Your task to perform on an android device: choose inbox layout in the gmail app Image 0: 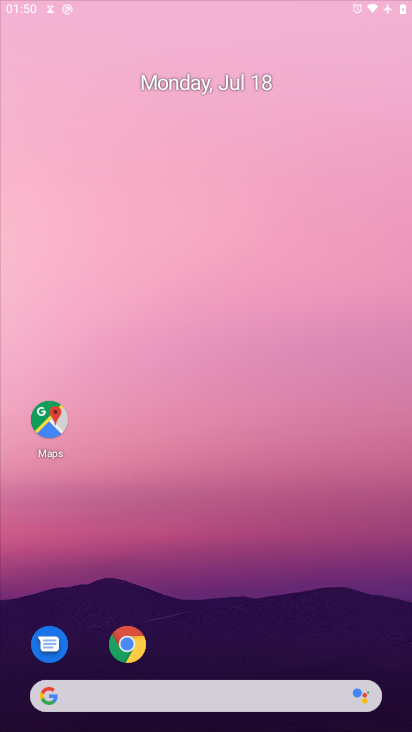
Step 0: press home button
Your task to perform on an android device: choose inbox layout in the gmail app Image 1: 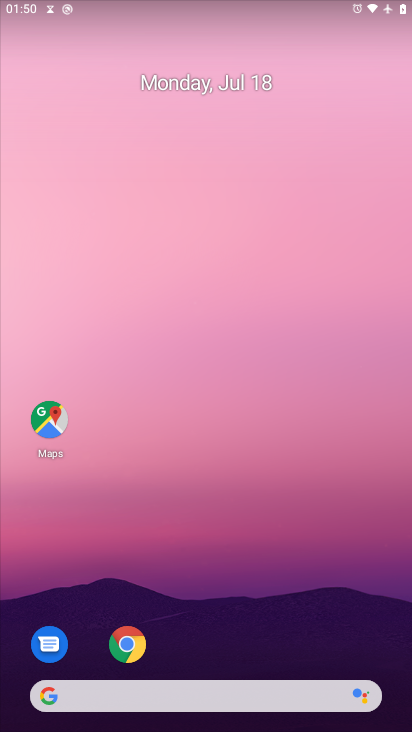
Step 1: drag from (190, 625) to (249, 75)
Your task to perform on an android device: choose inbox layout in the gmail app Image 2: 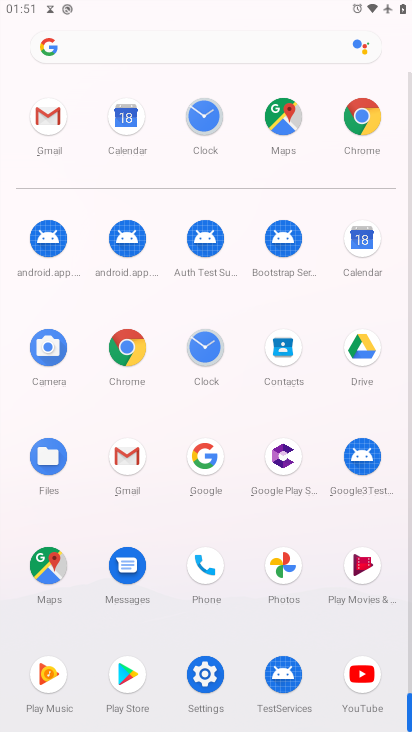
Step 2: click (50, 116)
Your task to perform on an android device: choose inbox layout in the gmail app Image 3: 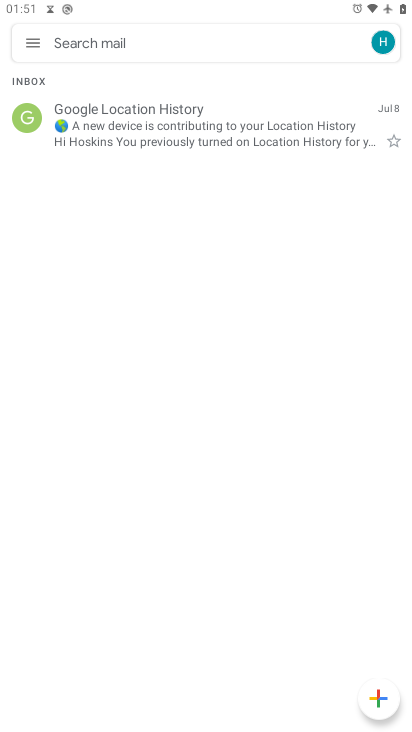
Step 3: click (40, 40)
Your task to perform on an android device: choose inbox layout in the gmail app Image 4: 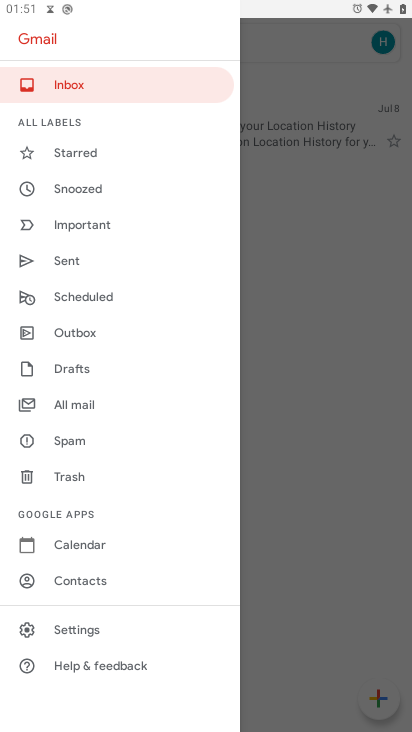
Step 4: click (88, 631)
Your task to perform on an android device: choose inbox layout in the gmail app Image 5: 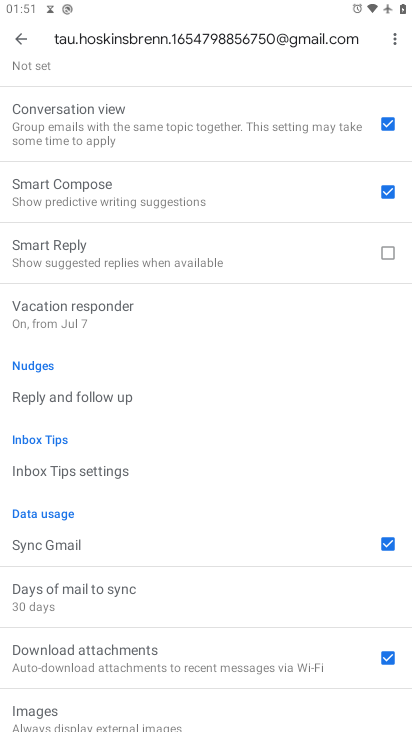
Step 5: drag from (229, 148) to (297, 723)
Your task to perform on an android device: choose inbox layout in the gmail app Image 6: 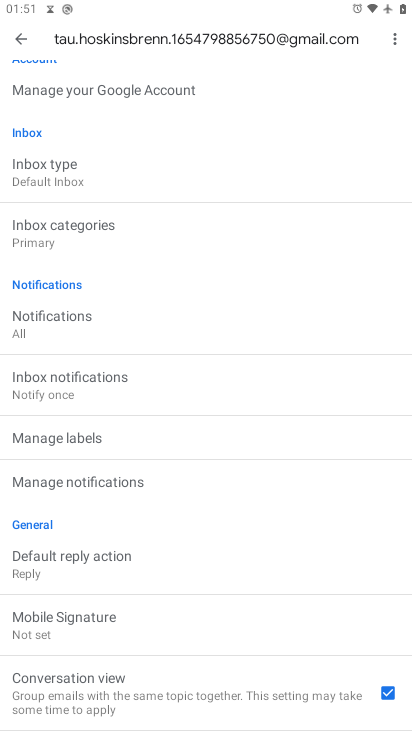
Step 6: click (58, 171)
Your task to perform on an android device: choose inbox layout in the gmail app Image 7: 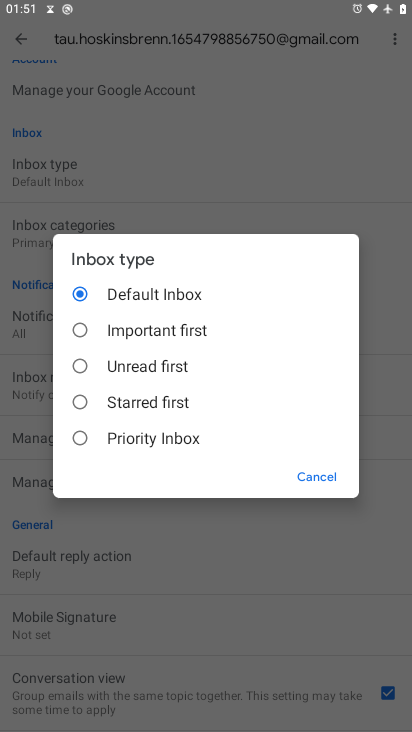
Step 7: click (89, 335)
Your task to perform on an android device: choose inbox layout in the gmail app Image 8: 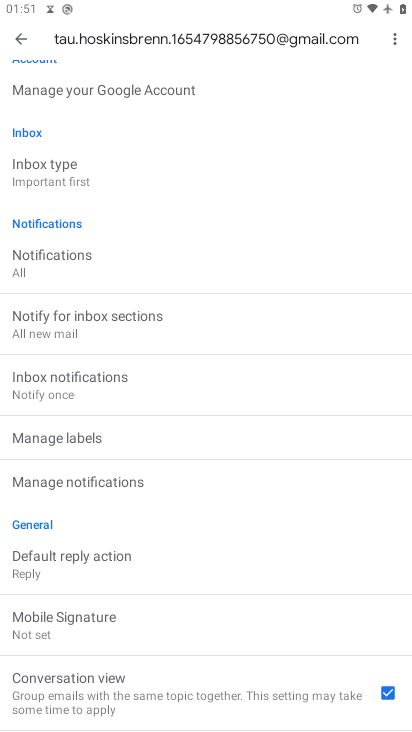
Step 8: task complete